Your task to perform on an android device: allow notifications from all sites in the chrome app Image 0: 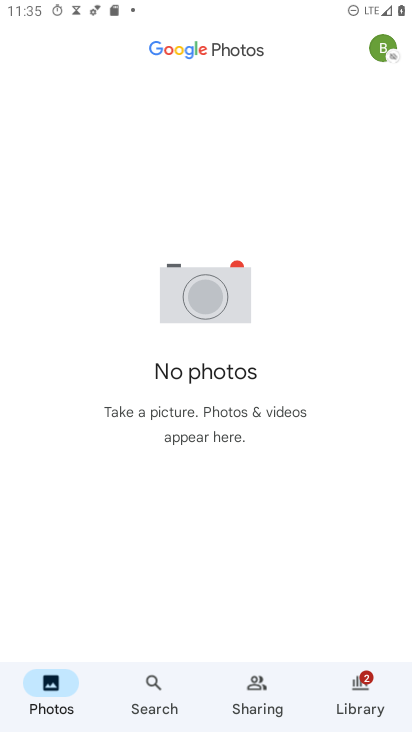
Step 0: press home button
Your task to perform on an android device: allow notifications from all sites in the chrome app Image 1: 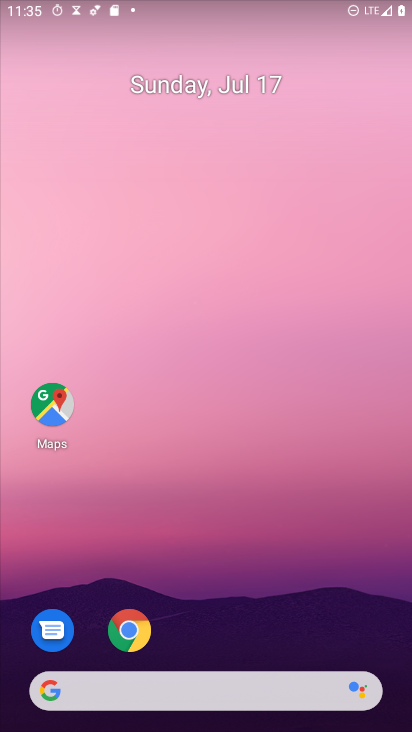
Step 1: drag from (322, 691) to (326, 21)
Your task to perform on an android device: allow notifications from all sites in the chrome app Image 2: 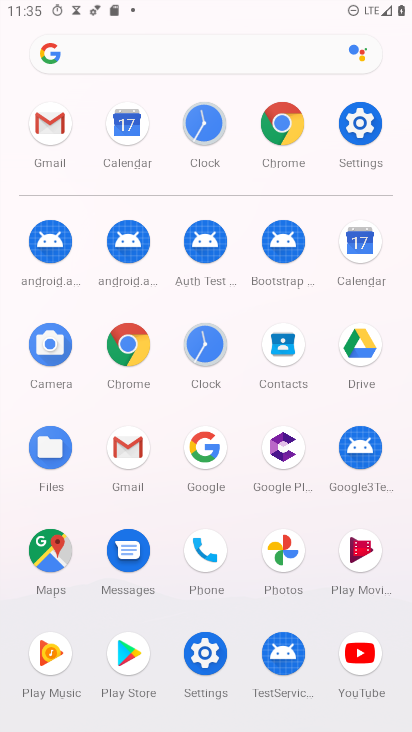
Step 2: click (137, 334)
Your task to perform on an android device: allow notifications from all sites in the chrome app Image 3: 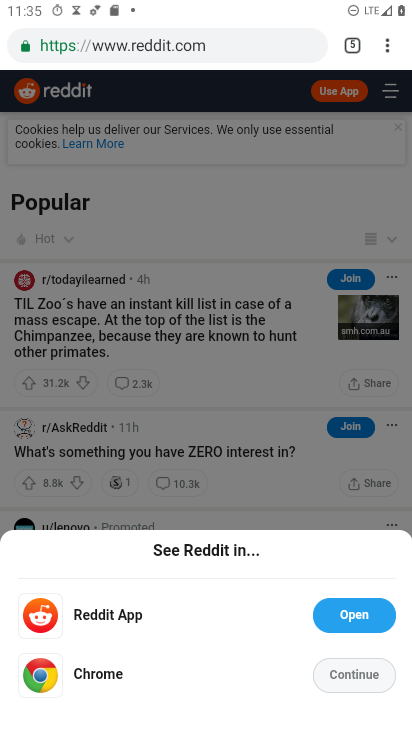
Step 3: click (381, 39)
Your task to perform on an android device: allow notifications from all sites in the chrome app Image 4: 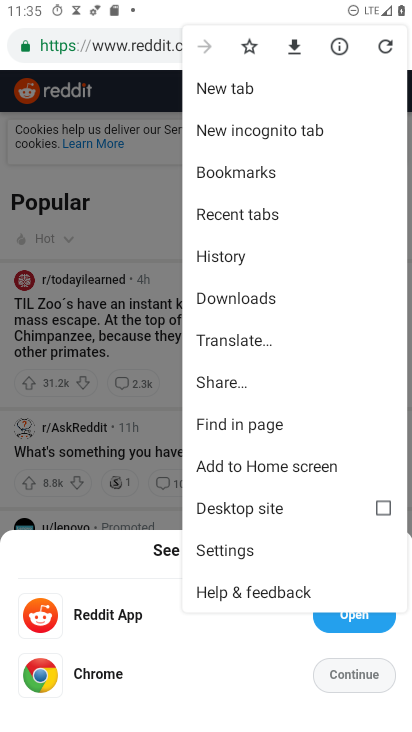
Step 4: click (284, 550)
Your task to perform on an android device: allow notifications from all sites in the chrome app Image 5: 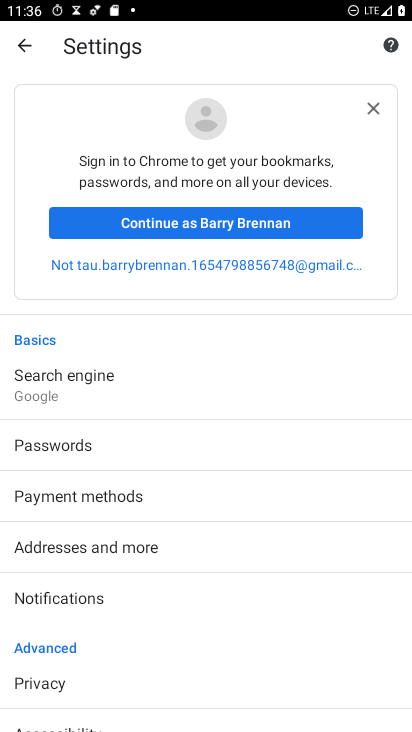
Step 5: click (126, 601)
Your task to perform on an android device: allow notifications from all sites in the chrome app Image 6: 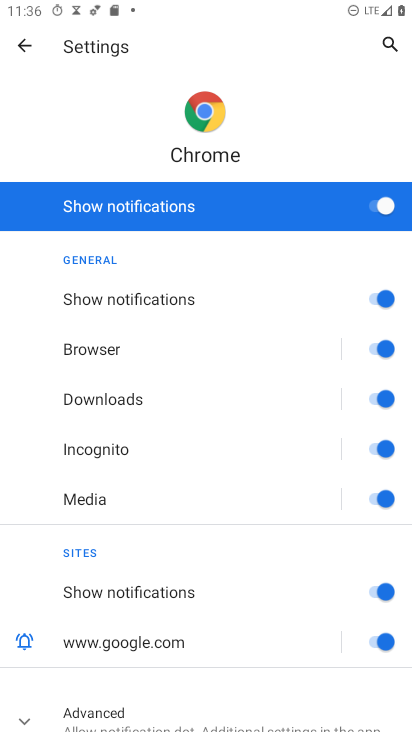
Step 6: click (371, 208)
Your task to perform on an android device: allow notifications from all sites in the chrome app Image 7: 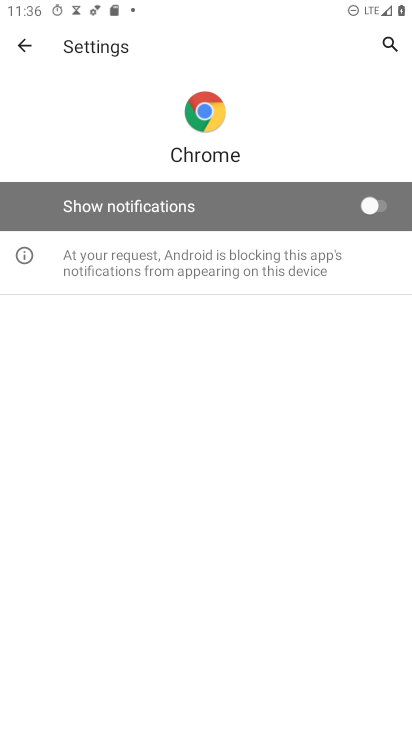
Step 7: task complete